Your task to perform on an android device: open chrome and create a bookmark for the current page Image 0: 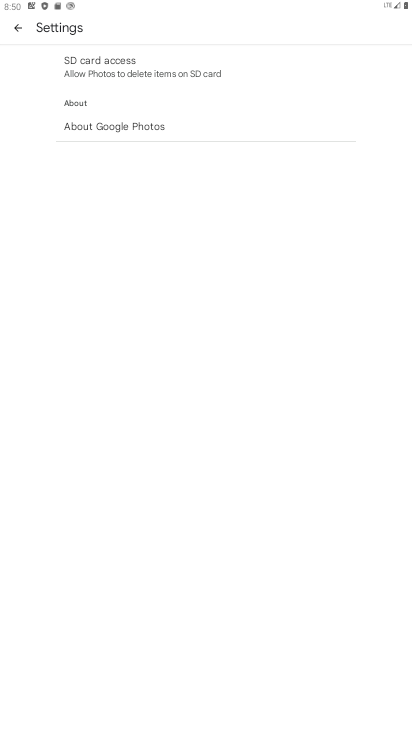
Step 0: press home button
Your task to perform on an android device: open chrome and create a bookmark for the current page Image 1: 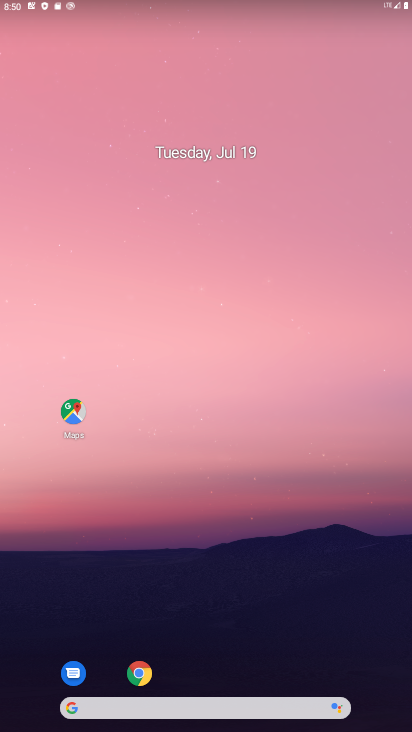
Step 1: drag from (390, 702) to (0, 13)
Your task to perform on an android device: open chrome and create a bookmark for the current page Image 2: 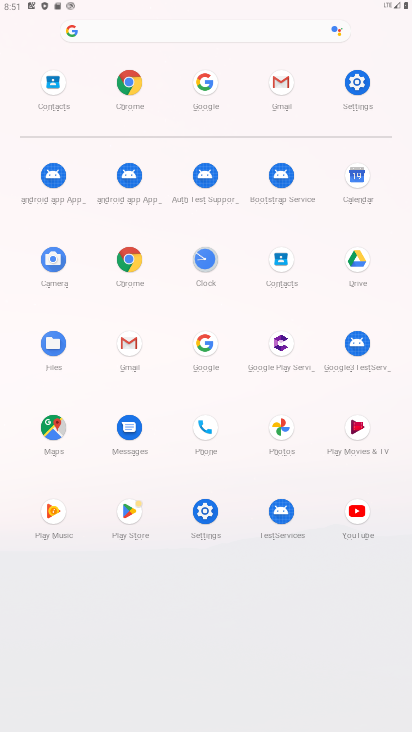
Step 2: click (129, 250)
Your task to perform on an android device: open chrome and create a bookmark for the current page Image 3: 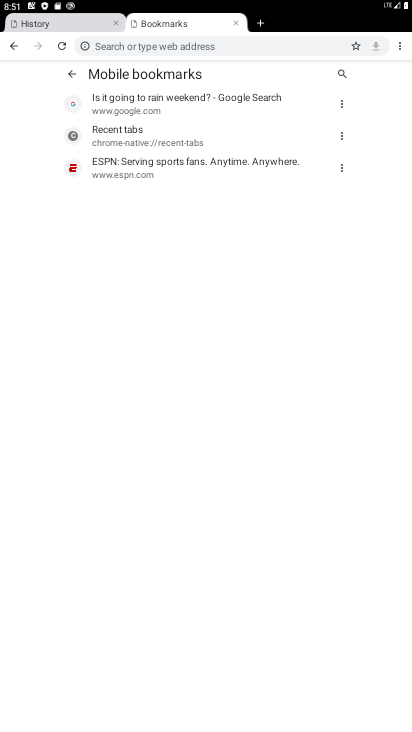
Step 3: click (236, 25)
Your task to perform on an android device: open chrome and create a bookmark for the current page Image 4: 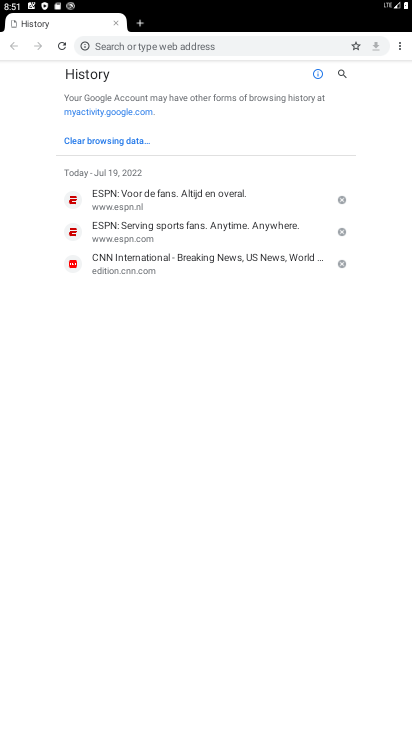
Step 4: task complete